Your task to perform on an android device: turn on priority inbox in the gmail app Image 0: 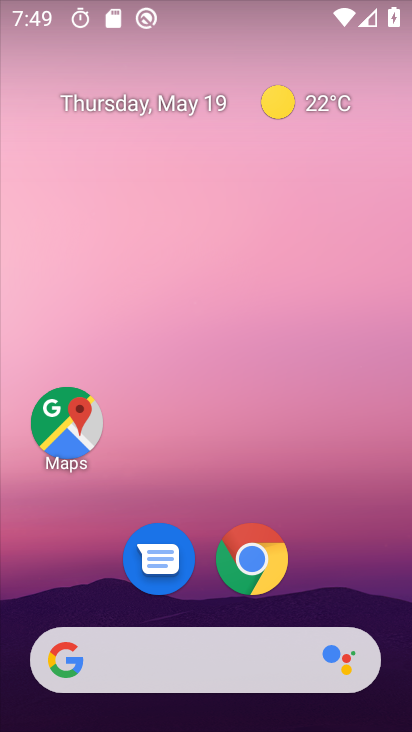
Step 0: drag from (329, 575) to (286, 28)
Your task to perform on an android device: turn on priority inbox in the gmail app Image 1: 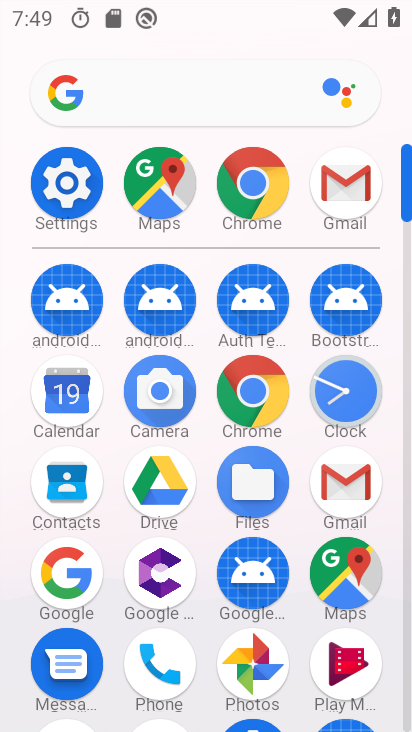
Step 1: click (340, 169)
Your task to perform on an android device: turn on priority inbox in the gmail app Image 2: 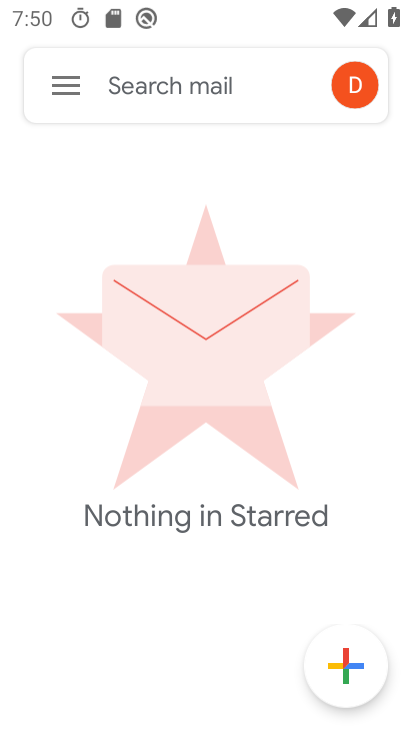
Step 2: click (59, 78)
Your task to perform on an android device: turn on priority inbox in the gmail app Image 3: 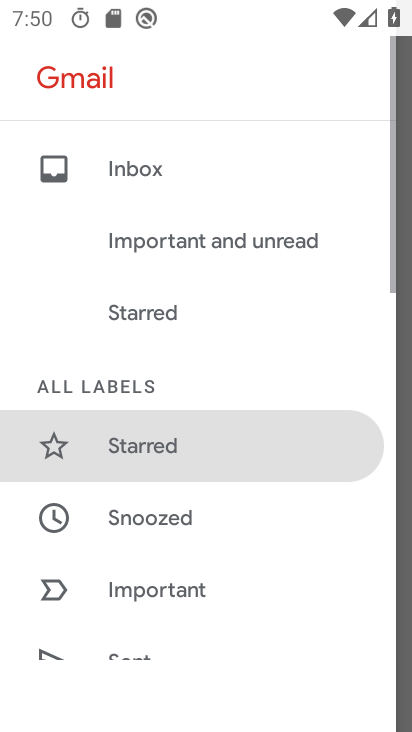
Step 3: drag from (158, 603) to (280, 119)
Your task to perform on an android device: turn on priority inbox in the gmail app Image 4: 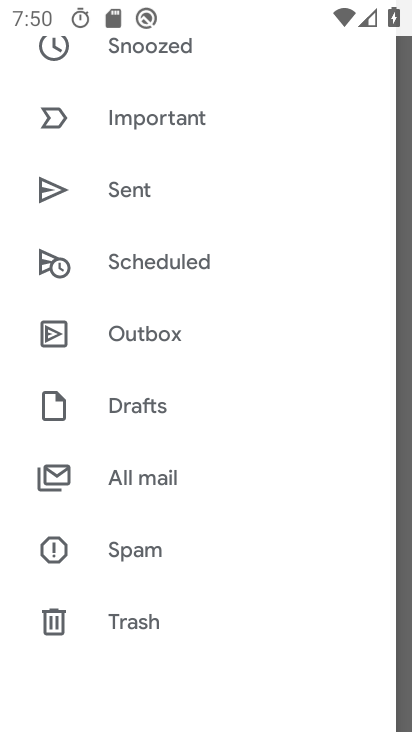
Step 4: drag from (274, 544) to (288, 244)
Your task to perform on an android device: turn on priority inbox in the gmail app Image 5: 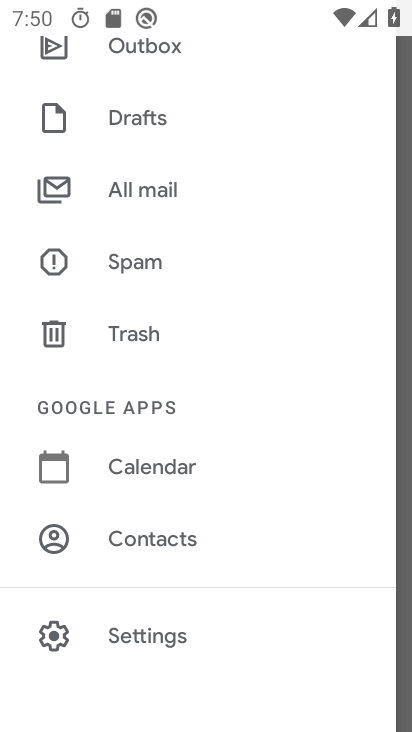
Step 5: click (167, 622)
Your task to perform on an android device: turn on priority inbox in the gmail app Image 6: 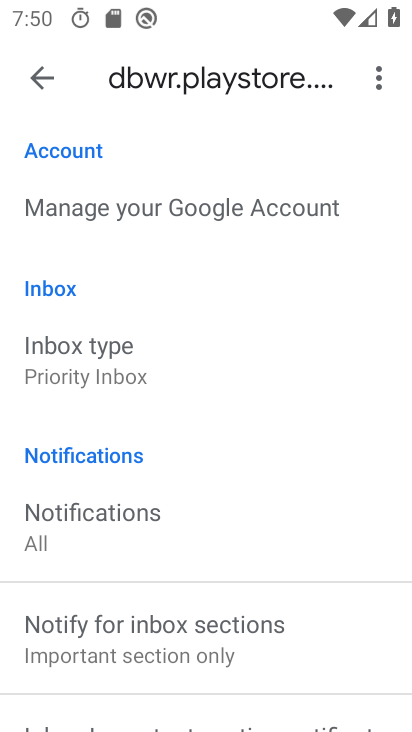
Step 6: click (70, 352)
Your task to perform on an android device: turn on priority inbox in the gmail app Image 7: 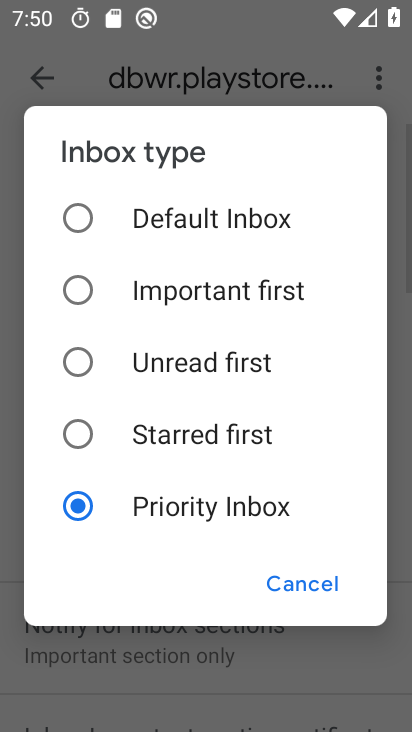
Step 7: click (152, 508)
Your task to perform on an android device: turn on priority inbox in the gmail app Image 8: 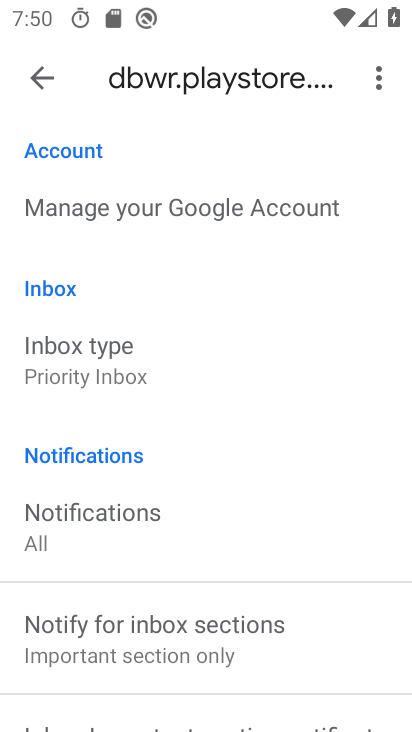
Step 8: task complete